Your task to perform on an android device: Open location settings Image 0: 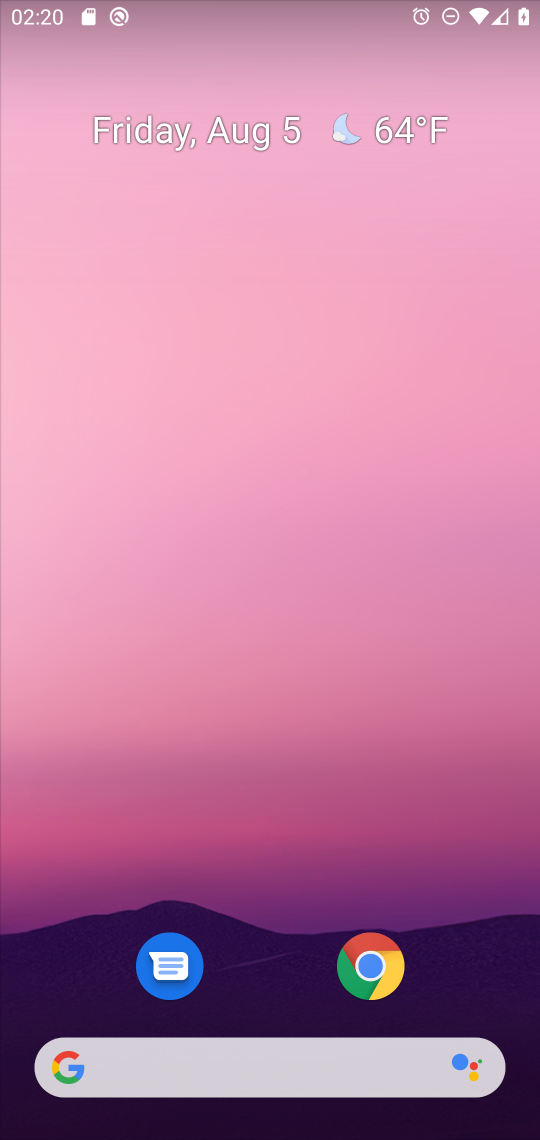
Step 0: drag from (289, 898) to (294, 16)
Your task to perform on an android device: Open location settings Image 1: 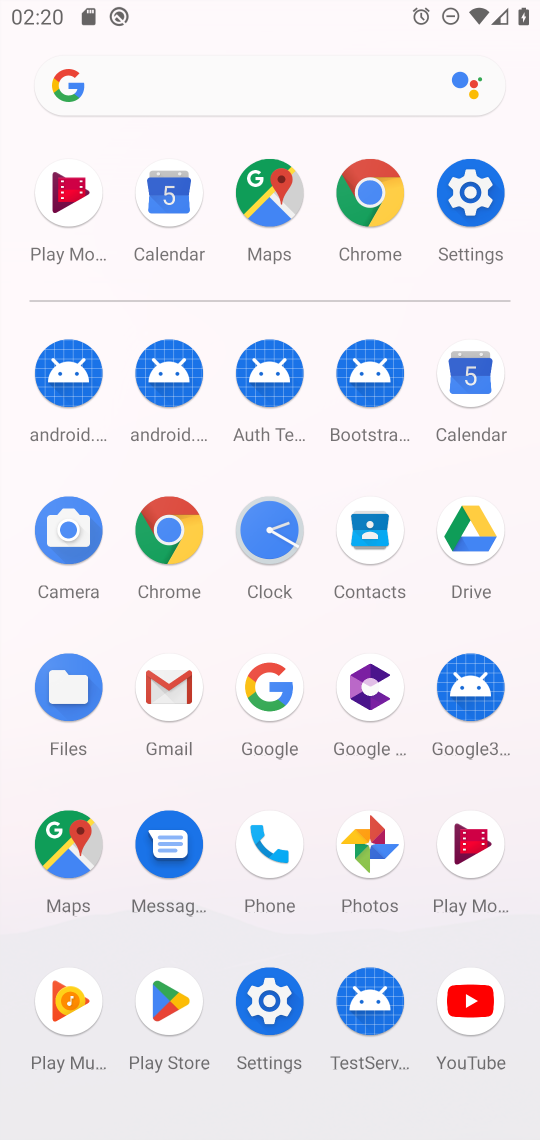
Step 1: click (468, 198)
Your task to perform on an android device: Open location settings Image 2: 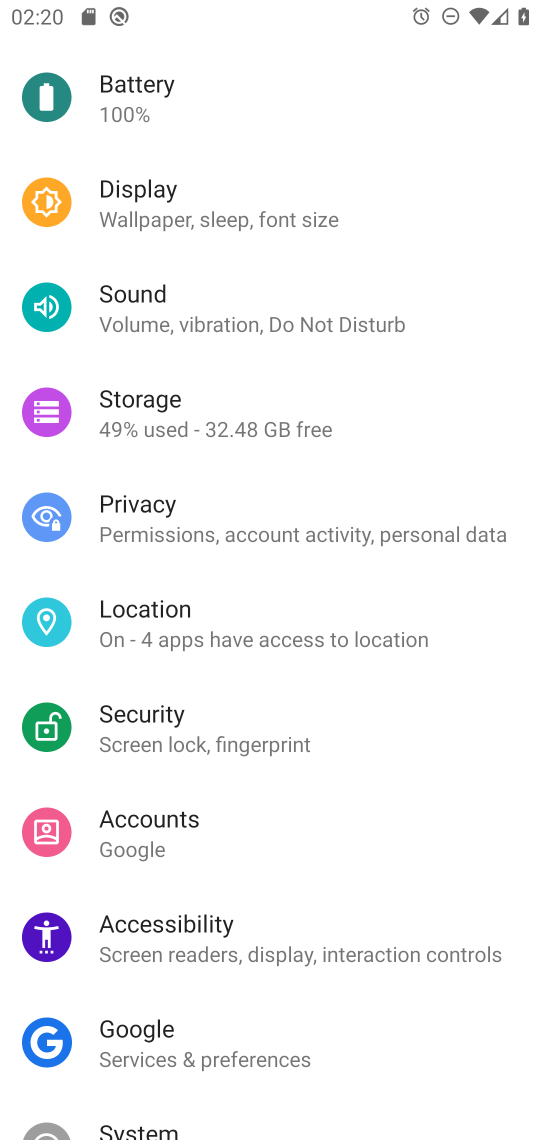
Step 2: click (251, 624)
Your task to perform on an android device: Open location settings Image 3: 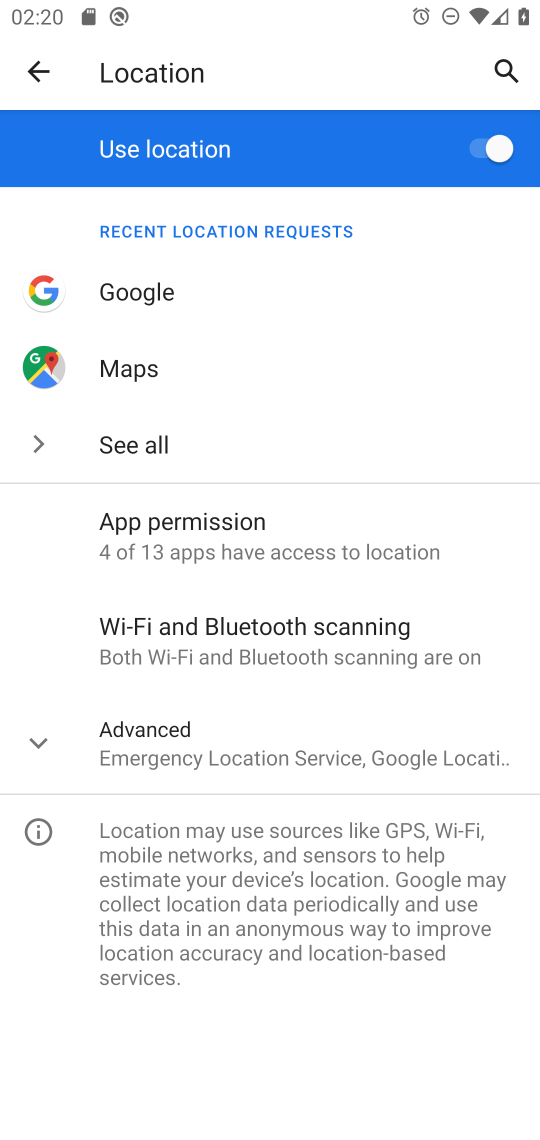
Step 3: task complete